Your task to perform on an android device: change the clock style Image 0: 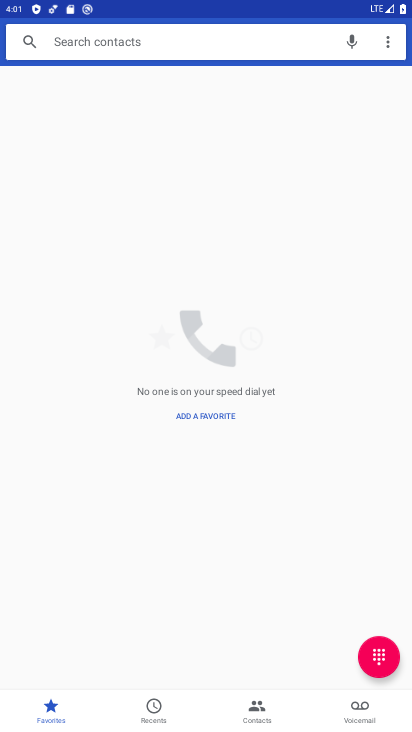
Step 0: press back button
Your task to perform on an android device: change the clock style Image 1: 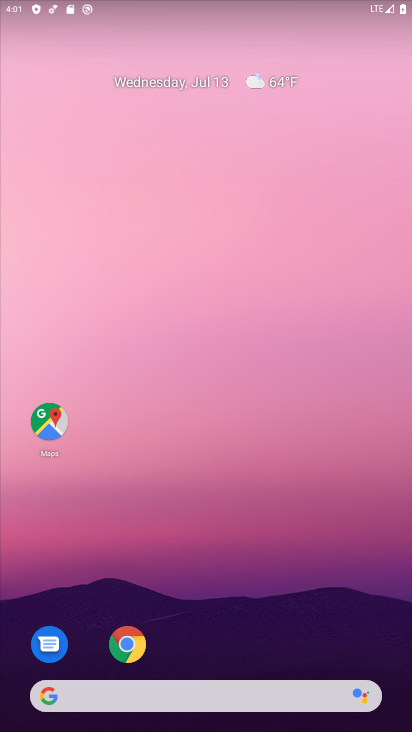
Step 1: drag from (224, 639) to (306, 0)
Your task to perform on an android device: change the clock style Image 2: 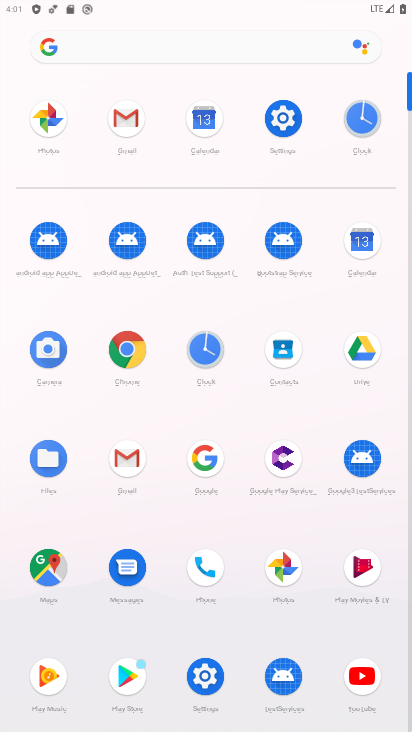
Step 2: click (209, 346)
Your task to perform on an android device: change the clock style Image 3: 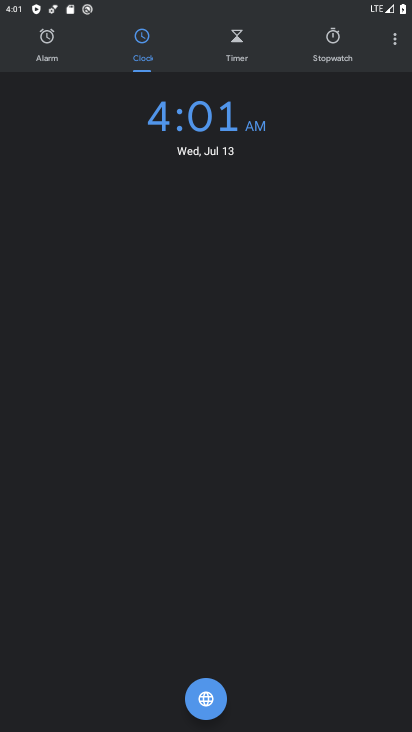
Step 3: click (391, 39)
Your task to perform on an android device: change the clock style Image 4: 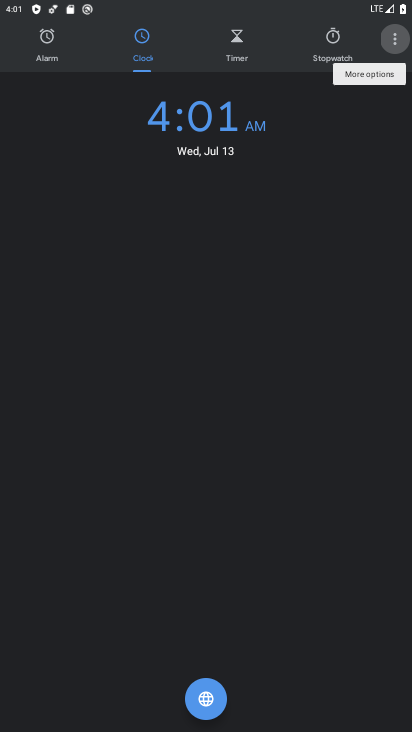
Step 4: click (394, 39)
Your task to perform on an android device: change the clock style Image 5: 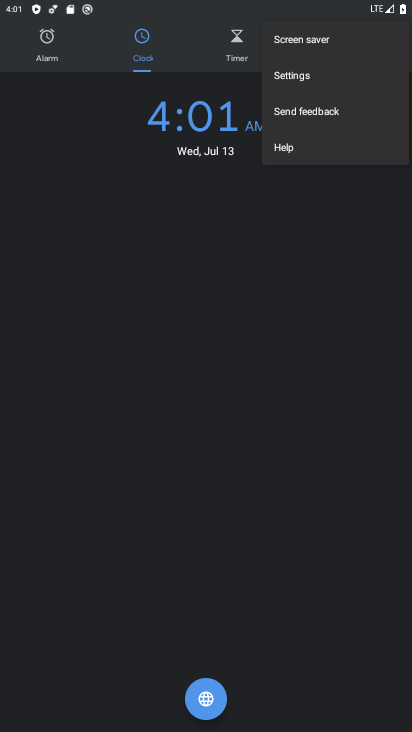
Step 5: click (308, 76)
Your task to perform on an android device: change the clock style Image 6: 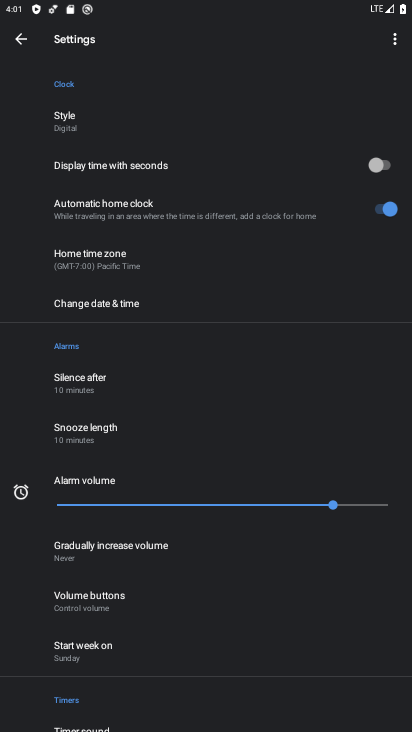
Step 6: click (118, 109)
Your task to perform on an android device: change the clock style Image 7: 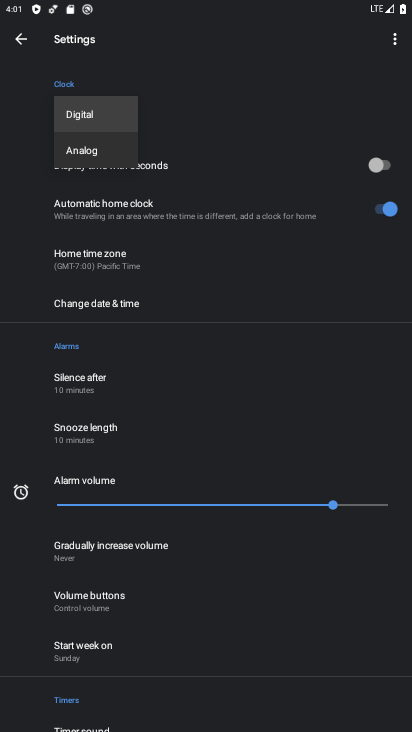
Step 7: click (80, 149)
Your task to perform on an android device: change the clock style Image 8: 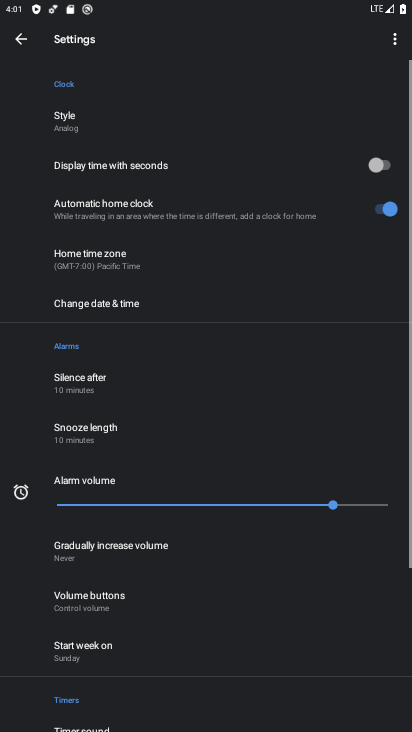
Step 8: task complete